Your task to perform on an android device: turn smart compose on in the gmail app Image 0: 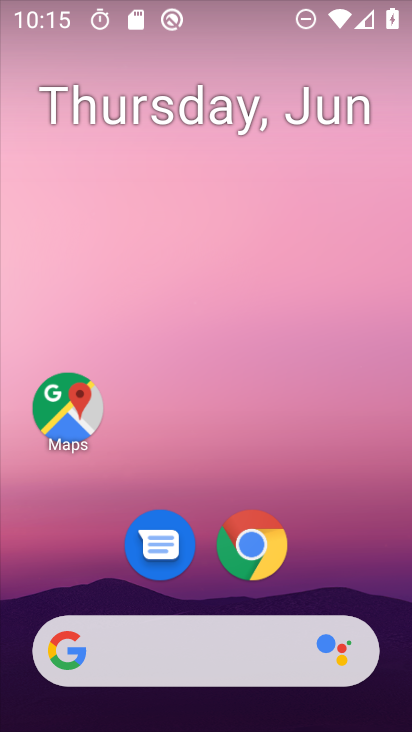
Step 0: drag from (204, 584) to (239, 17)
Your task to perform on an android device: turn smart compose on in the gmail app Image 1: 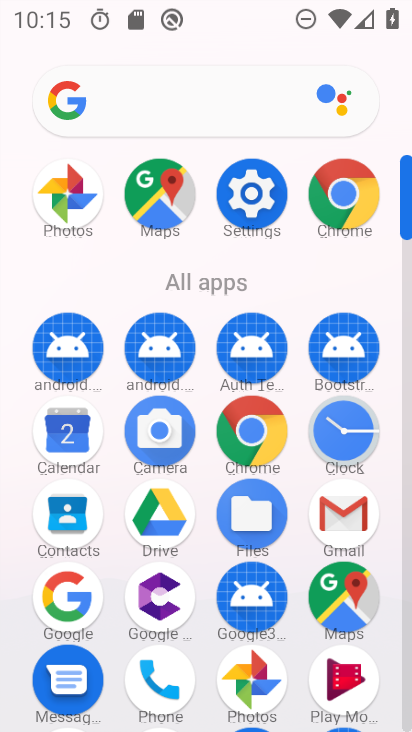
Step 1: click (342, 525)
Your task to perform on an android device: turn smart compose on in the gmail app Image 2: 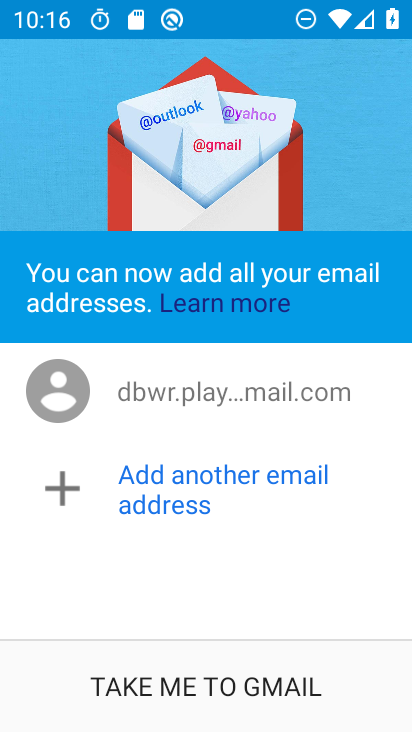
Step 2: click (287, 682)
Your task to perform on an android device: turn smart compose on in the gmail app Image 3: 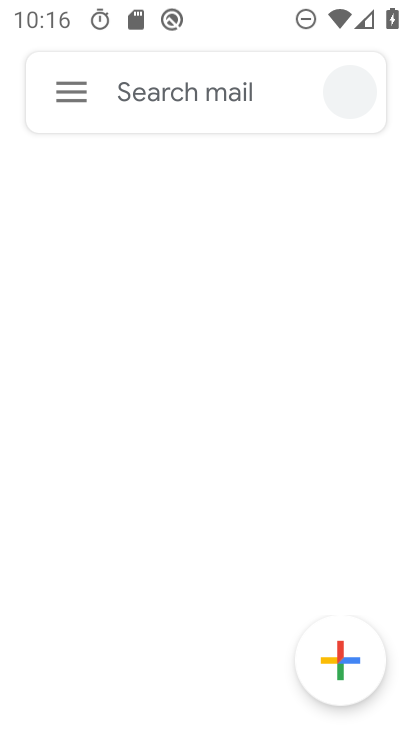
Step 3: click (62, 103)
Your task to perform on an android device: turn smart compose on in the gmail app Image 4: 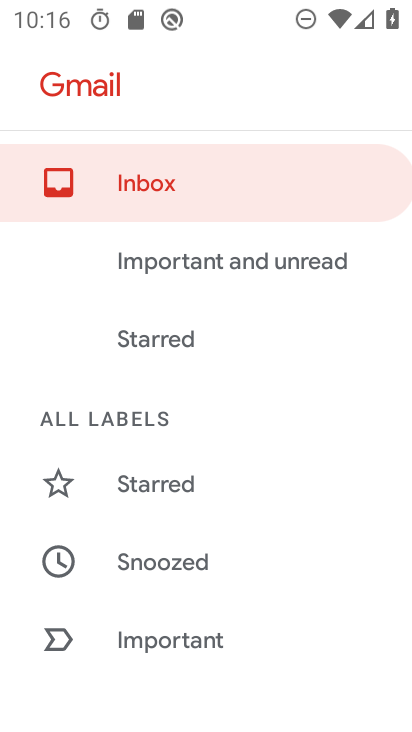
Step 4: drag from (80, 605) to (137, 51)
Your task to perform on an android device: turn smart compose on in the gmail app Image 5: 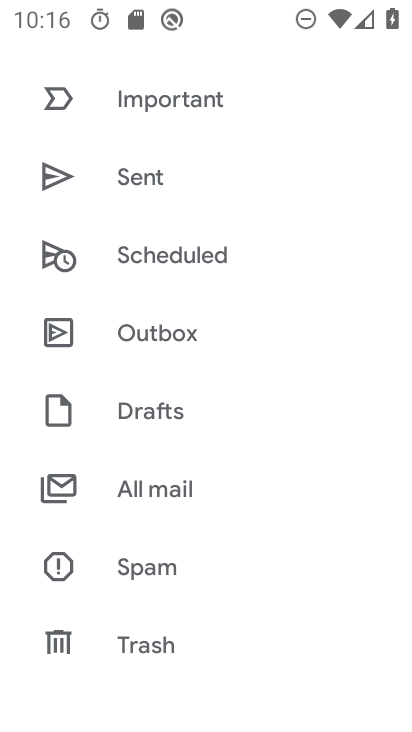
Step 5: drag from (220, 602) to (233, 237)
Your task to perform on an android device: turn smart compose on in the gmail app Image 6: 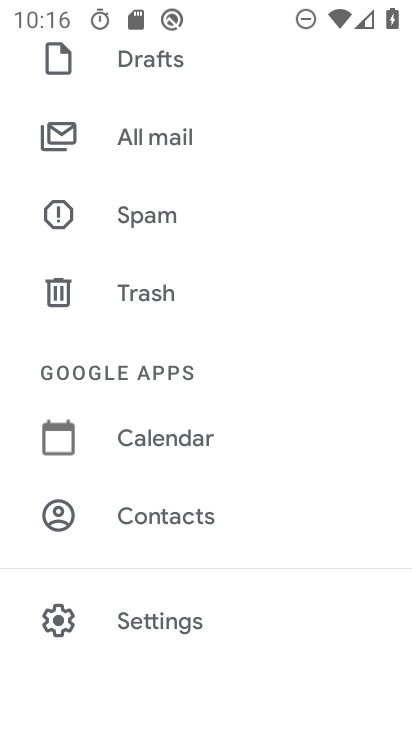
Step 6: click (147, 629)
Your task to perform on an android device: turn smart compose on in the gmail app Image 7: 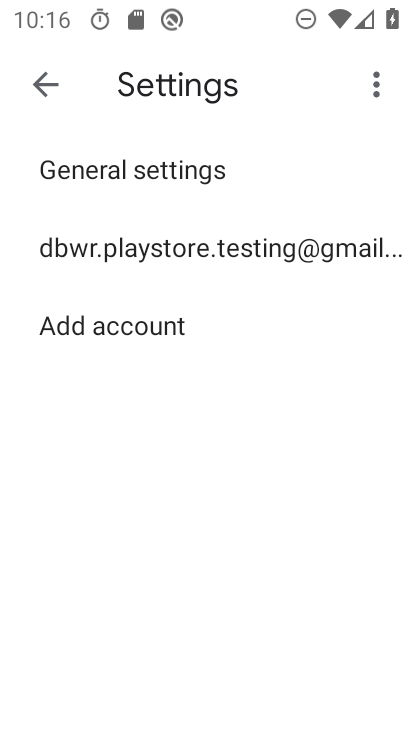
Step 7: click (202, 237)
Your task to perform on an android device: turn smart compose on in the gmail app Image 8: 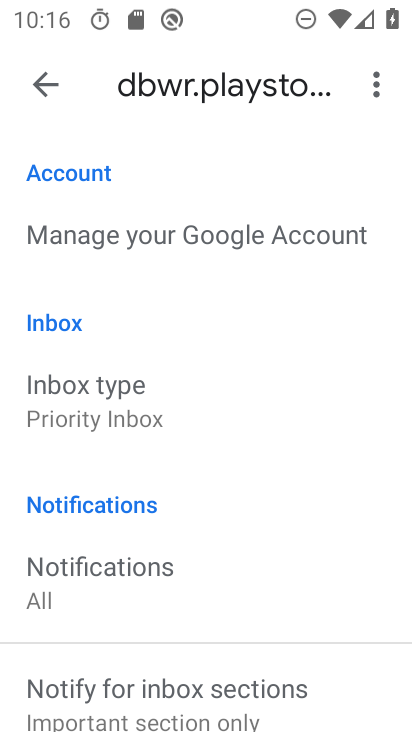
Step 8: task complete